Your task to perform on an android device: Go to notification settings Image 0: 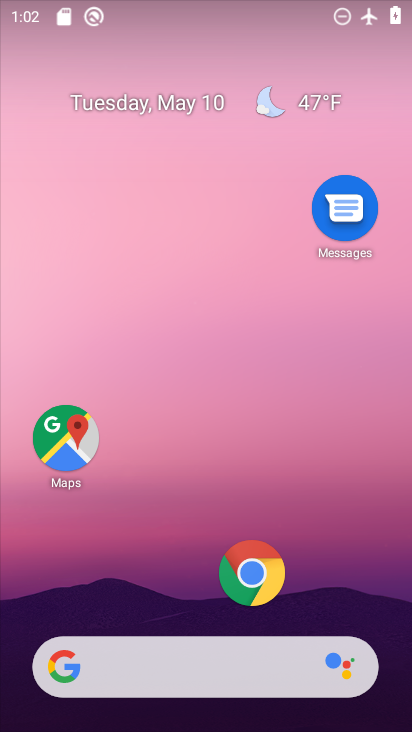
Step 0: drag from (154, 633) to (275, 200)
Your task to perform on an android device: Go to notification settings Image 1: 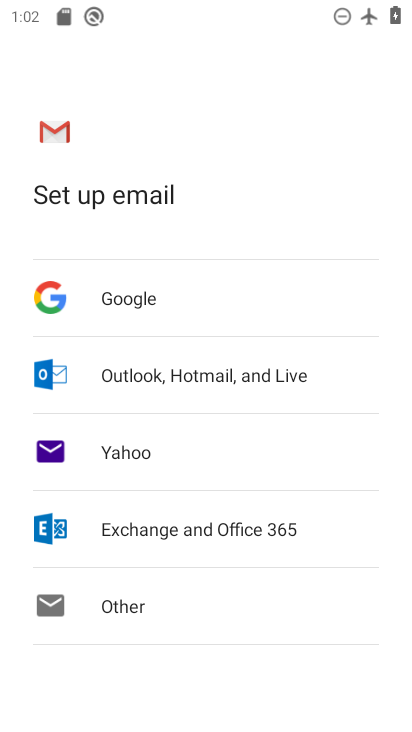
Step 1: press home button
Your task to perform on an android device: Go to notification settings Image 2: 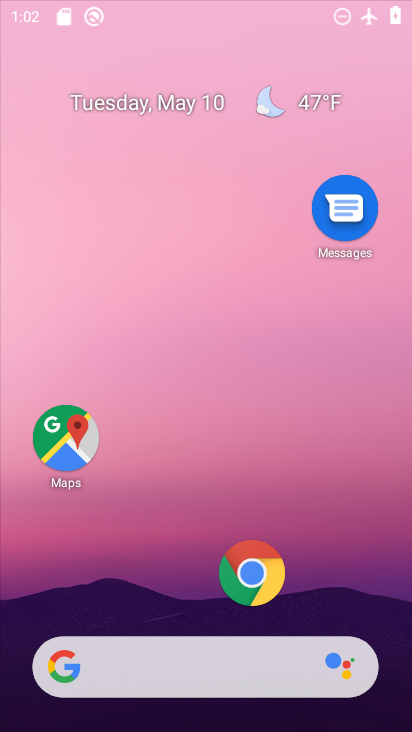
Step 2: drag from (176, 631) to (252, 150)
Your task to perform on an android device: Go to notification settings Image 3: 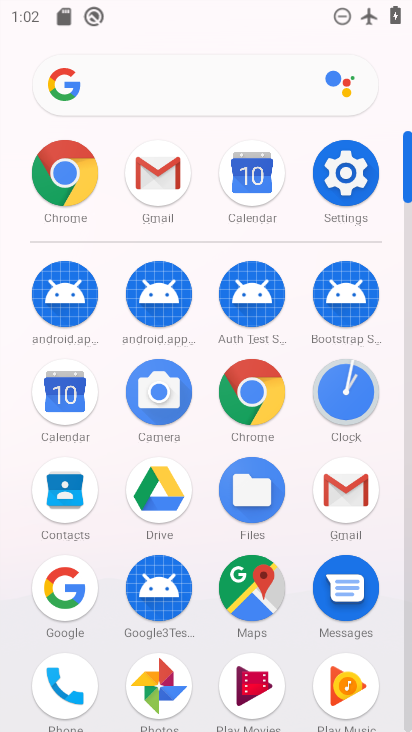
Step 3: click (370, 175)
Your task to perform on an android device: Go to notification settings Image 4: 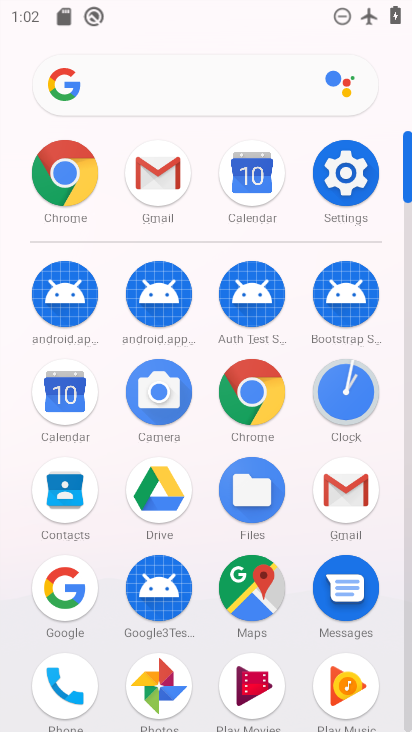
Step 4: click (370, 175)
Your task to perform on an android device: Go to notification settings Image 5: 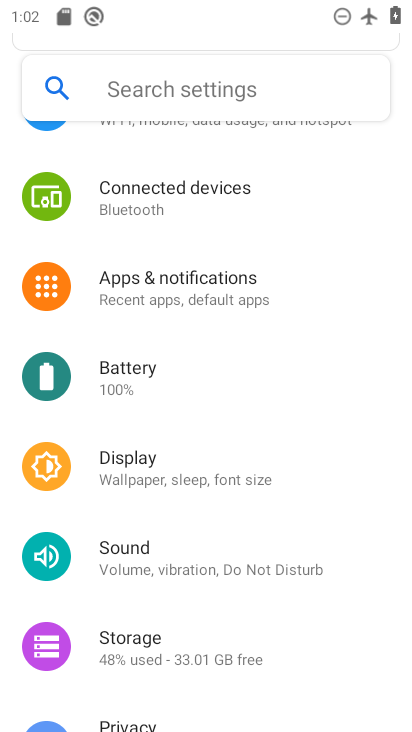
Step 5: drag from (157, 606) to (215, 181)
Your task to perform on an android device: Go to notification settings Image 6: 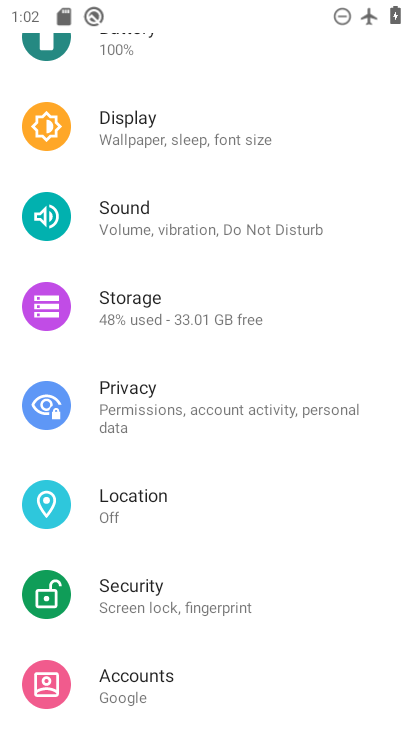
Step 6: drag from (207, 385) to (222, 709)
Your task to perform on an android device: Go to notification settings Image 7: 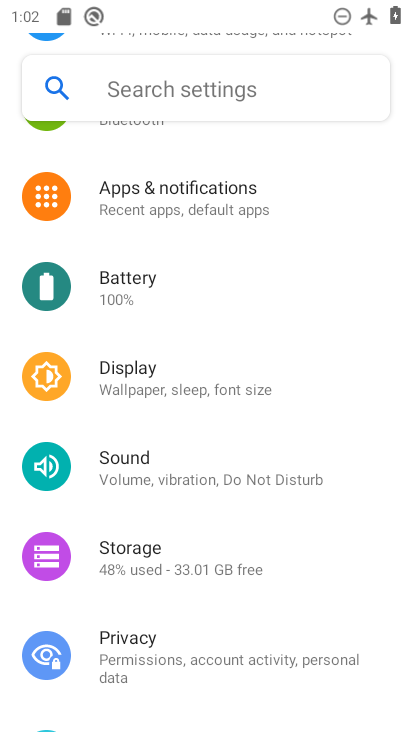
Step 7: click (235, 206)
Your task to perform on an android device: Go to notification settings Image 8: 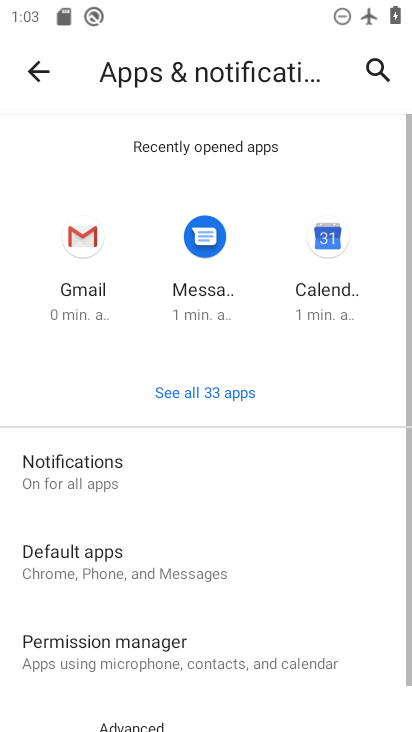
Step 8: click (120, 459)
Your task to perform on an android device: Go to notification settings Image 9: 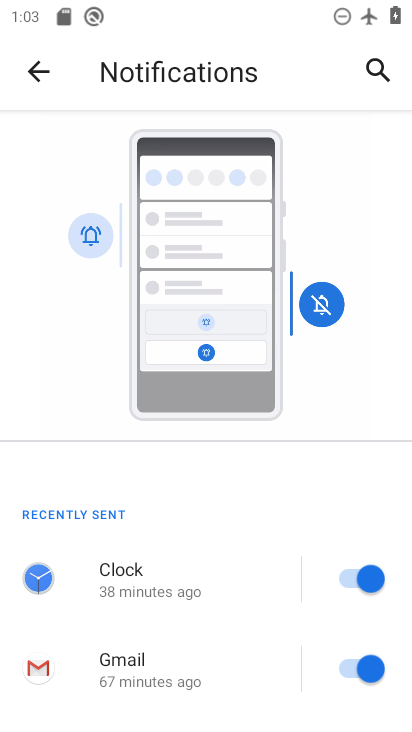
Step 9: task complete